Your task to perform on an android device: change notifications settings Image 0: 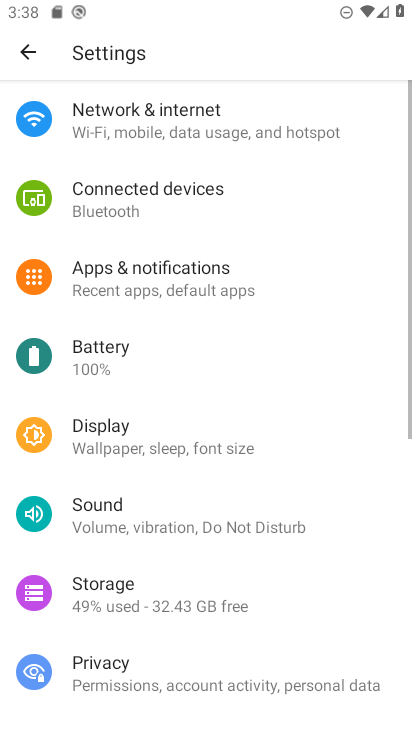
Step 0: press home button
Your task to perform on an android device: change notifications settings Image 1: 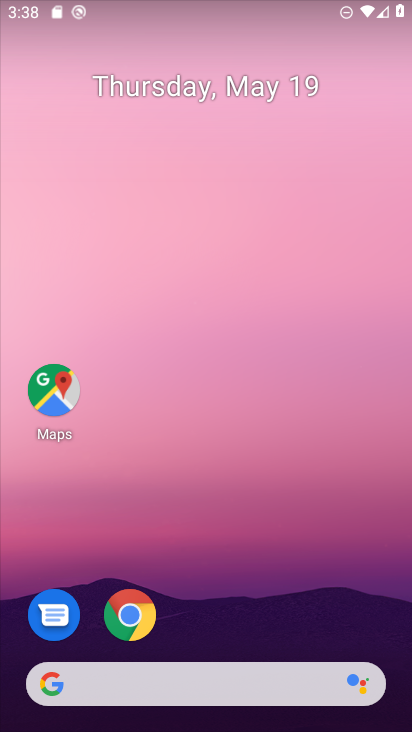
Step 1: drag from (237, 637) to (218, 11)
Your task to perform on an android device: change notifications settings Image 2: 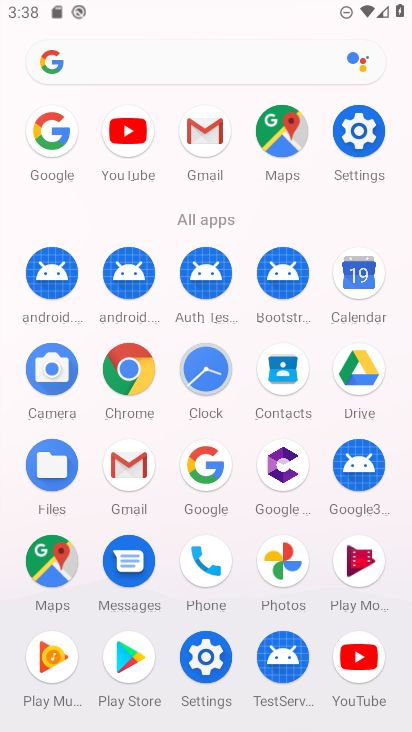
Step 2: click (369, 134)
Your task to perform on an android device: change notifications settings Image 3: 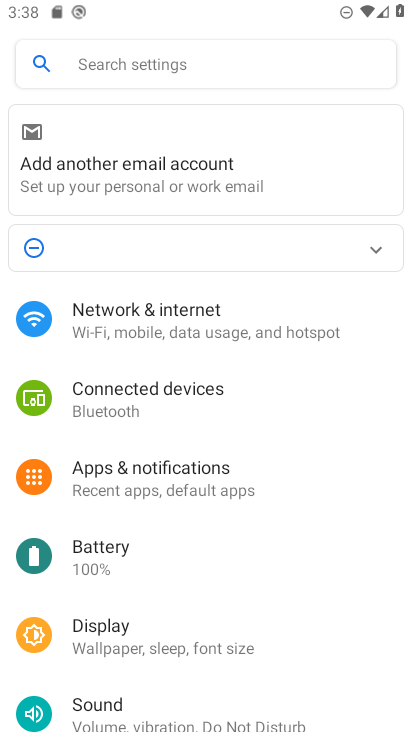
Step 3: click (296, 484)
Your task to perform on an android device: change notifications settings Image 4: 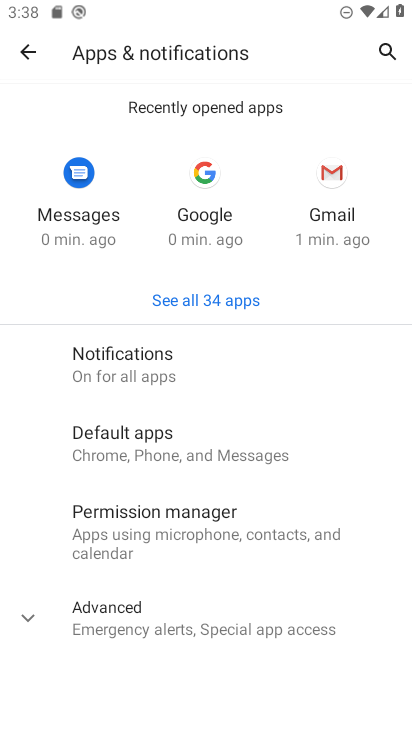
Step 4: click (221, 380)
Your task to perform on an android device: change notifications settings Image 5: 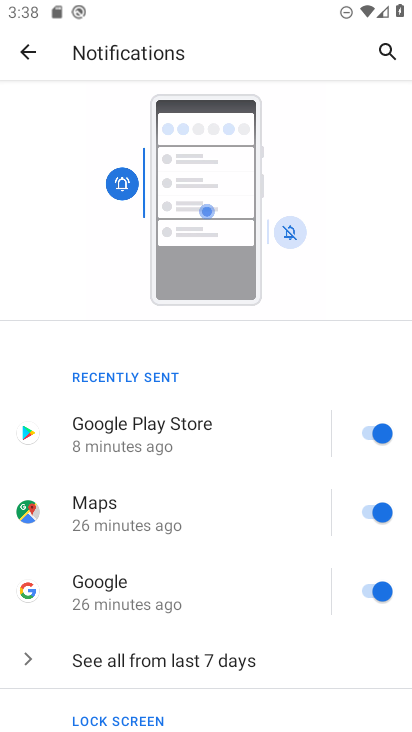
Step 5: drag from (275, 706) to (193, 261)
Your task to perform on an android device: change notifications settings Image 6: 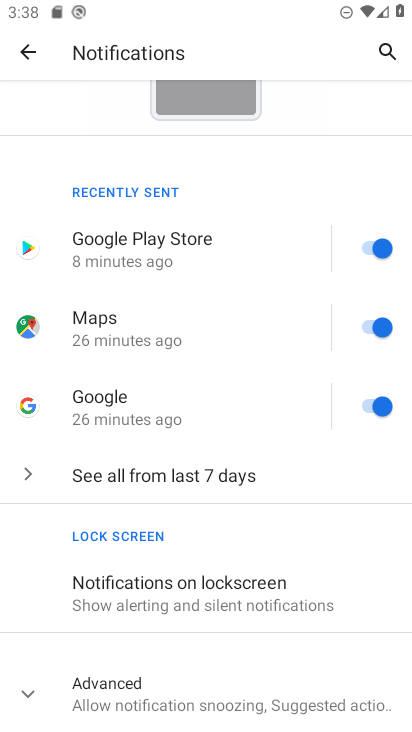
Step 6: click (274, 684)
Your task to perform on an android device: change notifications settings Image 7: 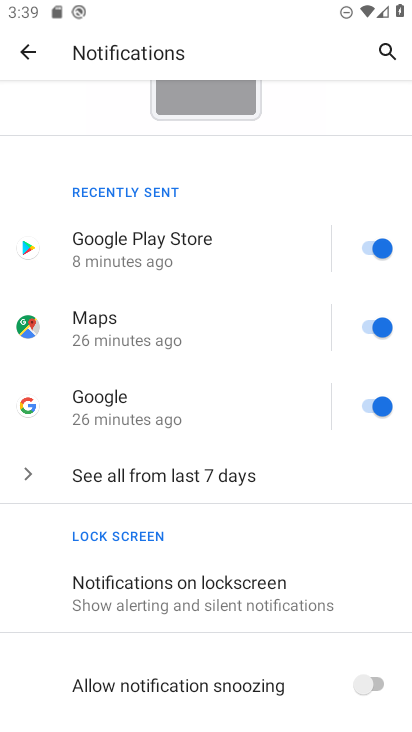
Step 7: drag from (274, 684) to (209, 436)
Your task to perform on an android device: change notifications settings Image 8: 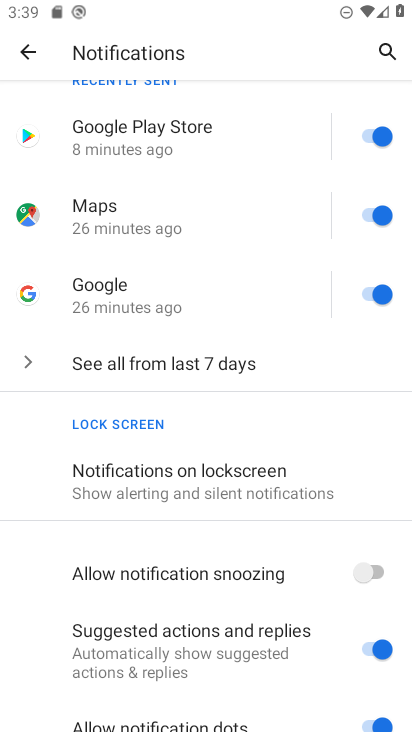
Step 8: click (375, 648)
Your task to perform on an android device: change notifications settings Image 9: 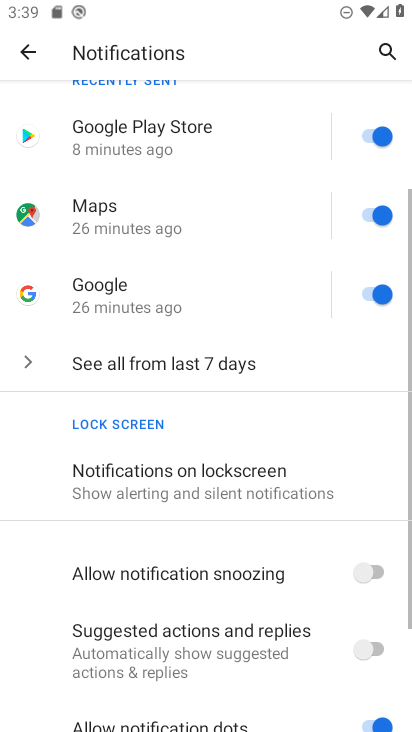
Step 9: drag from (325, 650) to (272, 418)
Your task to perform on an android device: change notifications settings Image 10: 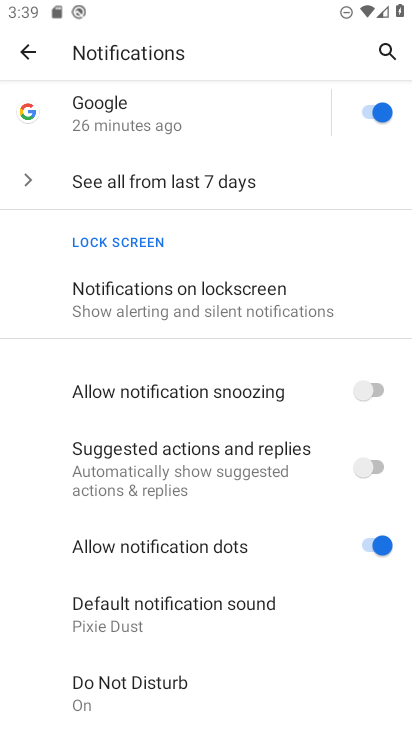
Step 10: click (380, 546)
Your task to perform on an android device: change notifications settings Image 11: 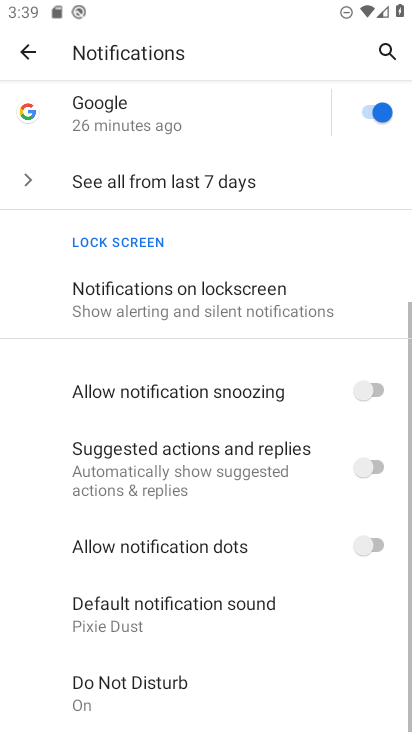
Step 11: task complete